Your task to perform on an android device: turn off priority inbox in the gmail app Image 0: 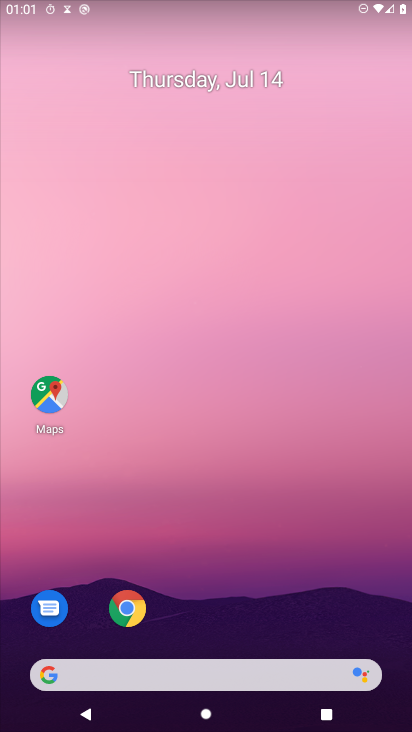
Step 0: press home button
Your task to perform on an android device: turn off priority inbox in the gmail app Image 1: 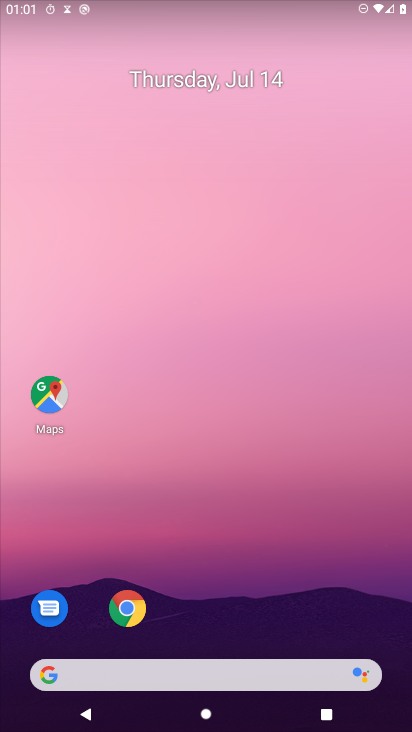
Step 1: drag from (306, 619) to (329, 48)
Your task to perform on an android device: turn off priority inbox in the gmail app Image 2: 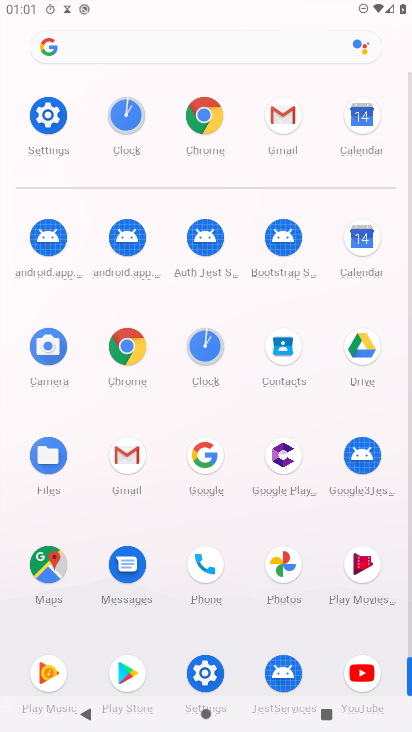
Step 2: click (285, 121)
Your task to perform on an android device: turn off priority inbox in the gmail app Image 3: 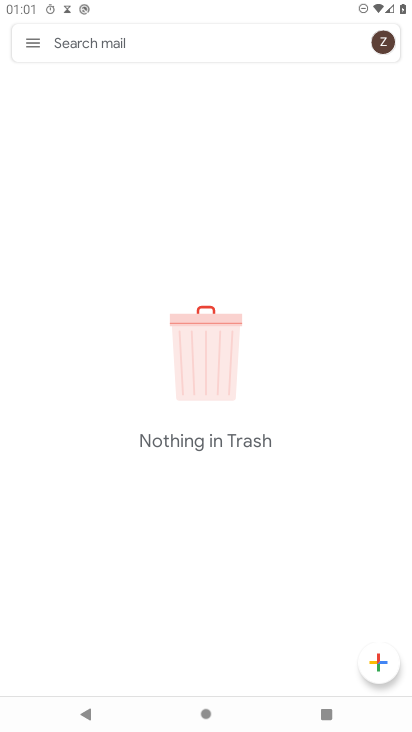
Step 3: click (30, 41)
Your task to perform on an android device: turn off priority inbox in the gmail app Image 4: 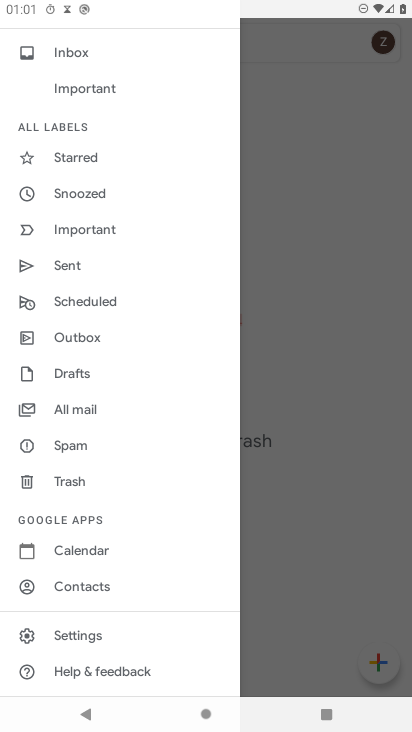
Step 4: click (90, 633)
Your task to perform on an android device: turn off priority inbox in the gmail app Image 5: 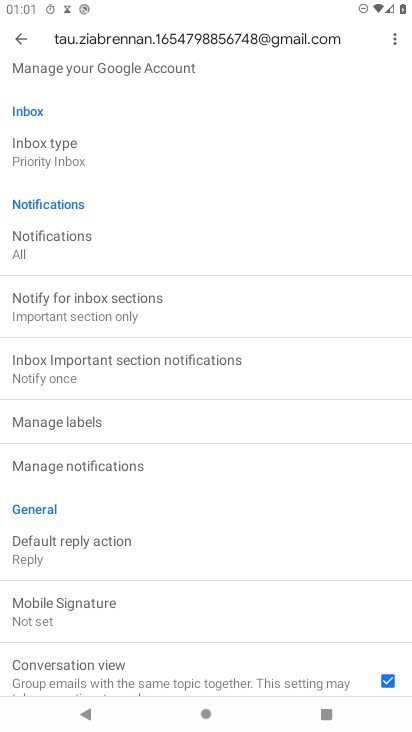
Step 5: click (39, 148)
Your task to perform on an android device: turn off priority inbox in the gmail app Image 6: 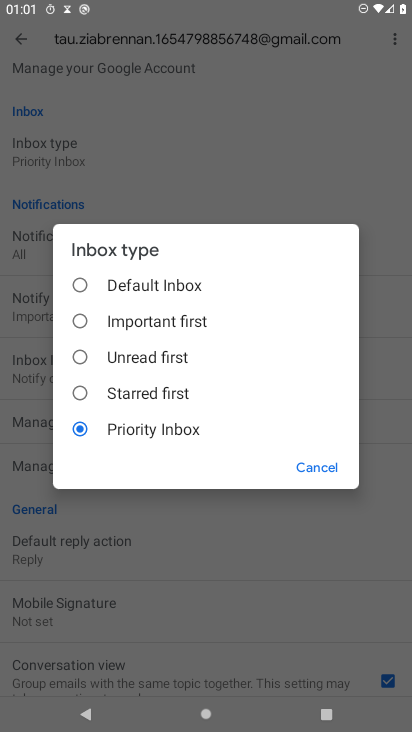
Step 6: click (171, 281)
Your task to perform on an android device: turn off priority inbox in the gmail app Image 7: 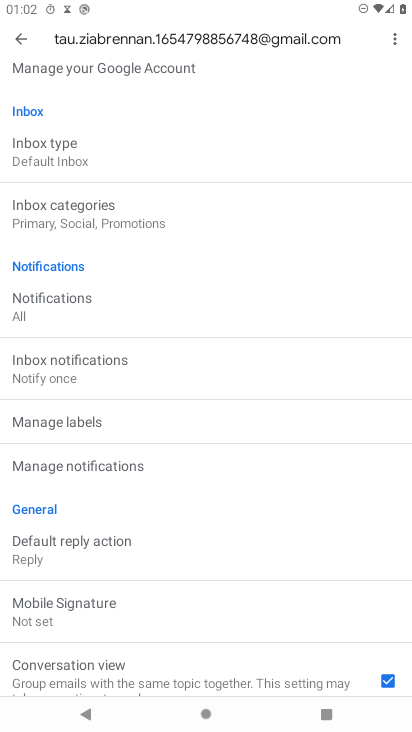
Step 7: task complete